Your task to perform on an android device: turn off javascript in the chrome app Image 0: 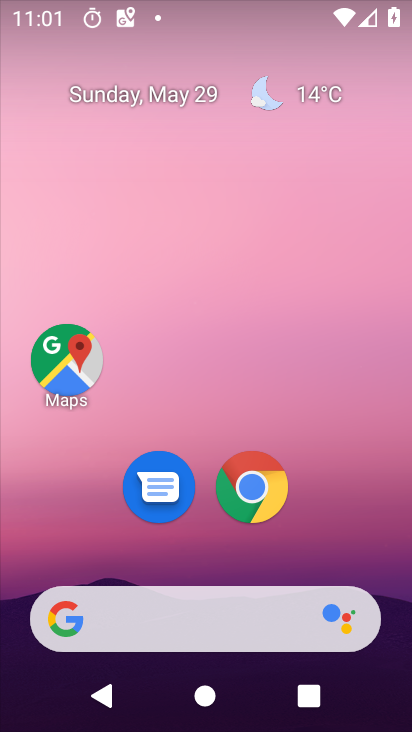
Step 0: click (260, 484)
Your task to perform on an android device: turn off javascript in the chrome app Image 1: 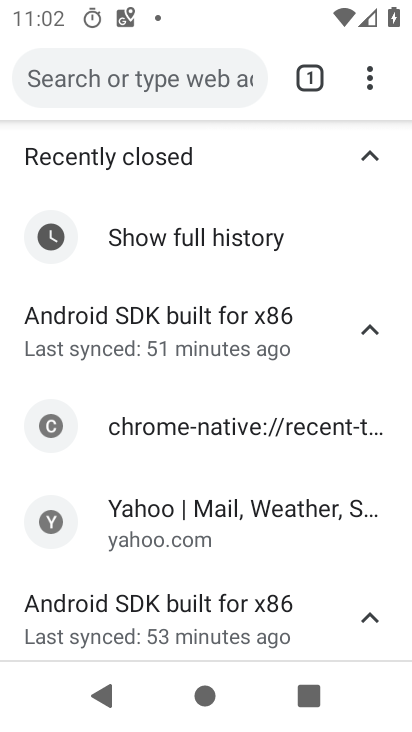
Step 1: click (366, 77)
Your task to perform on an android device: turn off javascript in the chrome app Image 2: 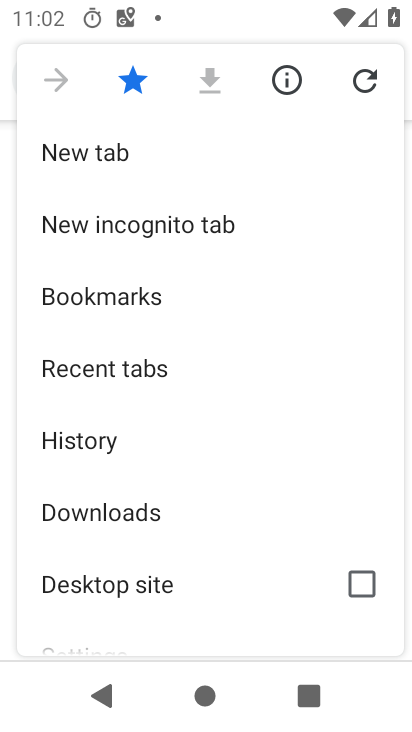
Step 2: drag from (211, 572) to (223, 333)
Your task to perform on an android device: turn off javascript in the chrome app Image 3: 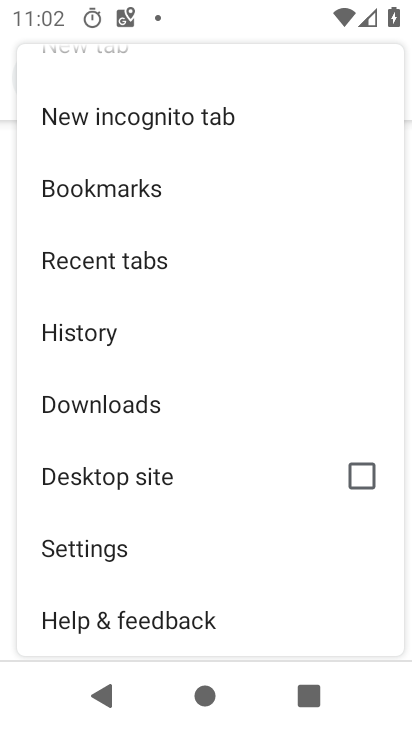
Step 3: click (62, 550)
Your task to perform on an android device: turn off javascript in the chrome app Image 4: 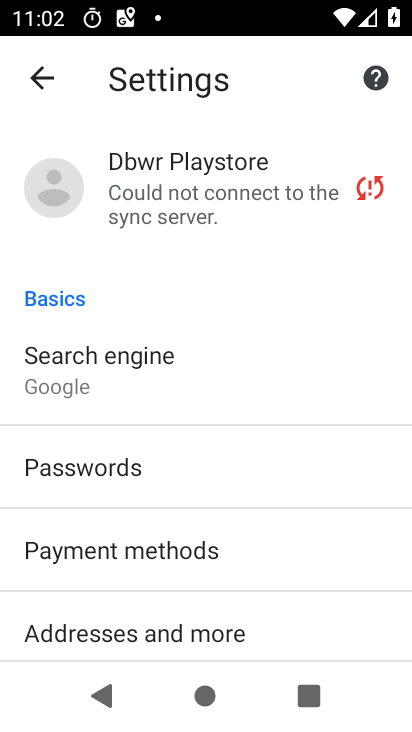
Step 4: drag from (275, 637) to (290, 244)
Your task to perform on an android device: turn off javascript in the chrome app Image 5: 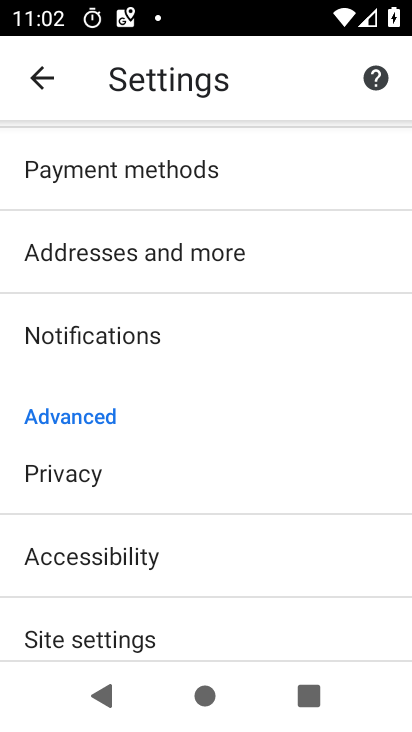
Step 5: drag from (232, 624) to (269, 389)
Your task to perform on an android device: turn off javascript in the chrome app Image 6: 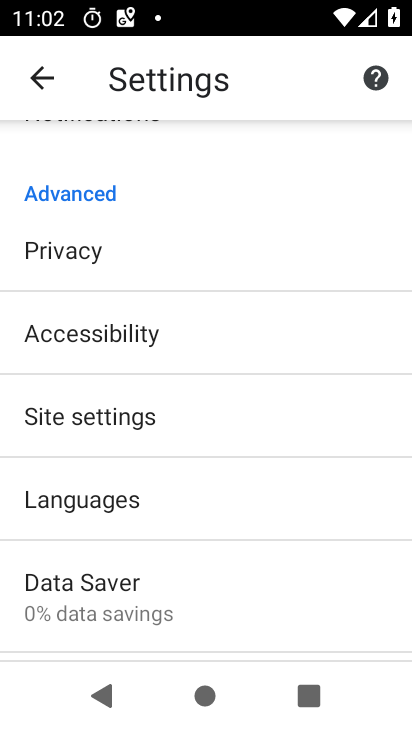
Step 6: click (83, 406)
Your task to perform on an android device: turn off javascript in the chrome app Image 7: 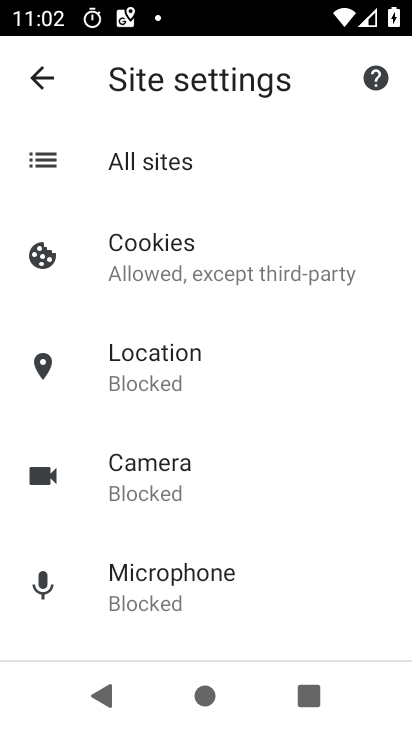
Step 7: drag from (312, 606) to (309, 366)
Your task to perform on an android device: turn off javascript in the chrome app Image 8: 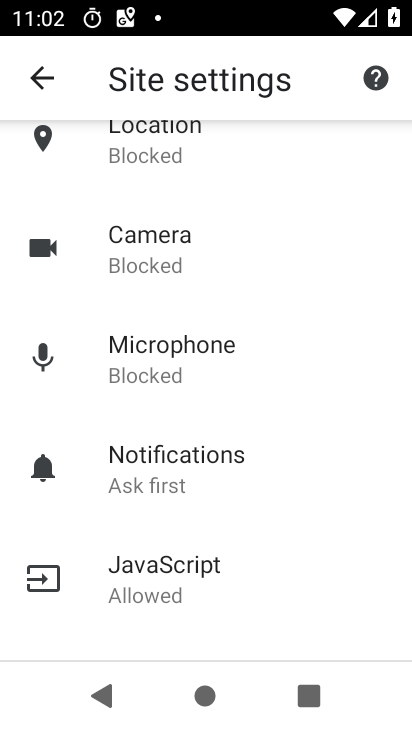
Step 8: click (172, 560)
Your task to perform on an android device: turn off javascript in the chrome app Image 9: 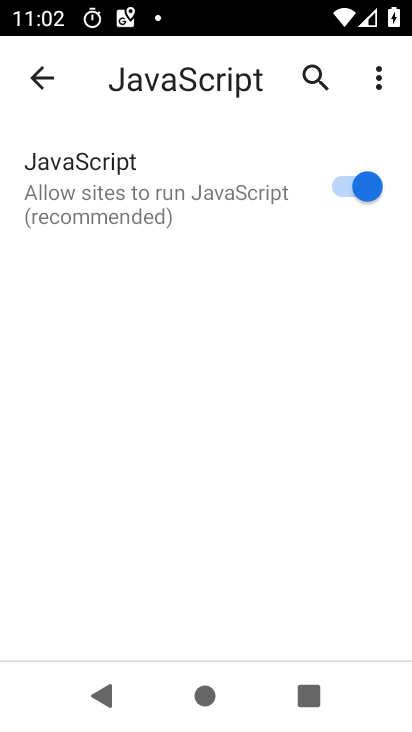
Step 9: click (348, 186)
Your task to perform on an android device: turn off javascript in the chrome app Image 10: 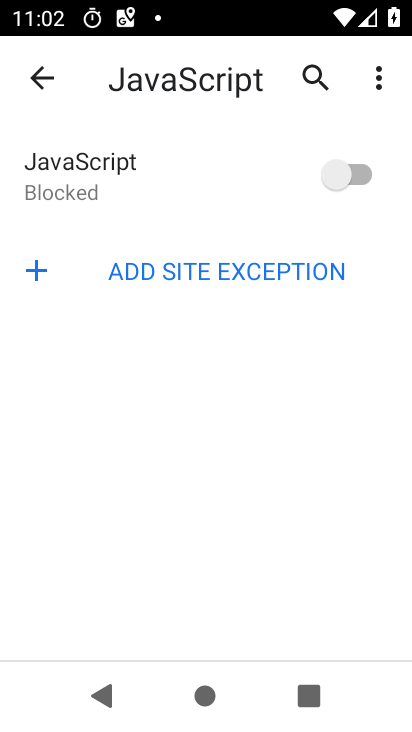
Step 10: task complete